Your task to perform on an android device: Open the Play Movies app and select the watchlist tab. Image 0: 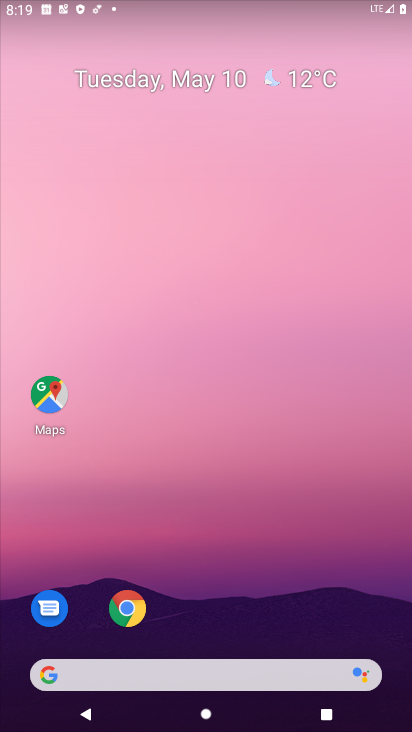
Step 0: drag from (154, 674) to (294, 255)
Your task to perform on an android device: Open the Play Movies app and select the watchlist tab. Image 1: 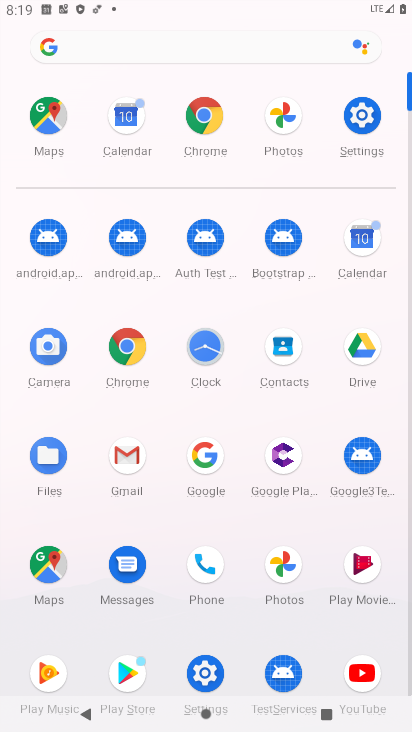
Step 1: click (362, 561)
Your task to perform on an android device: Open the Play Movies app and select the watchlist tab. Image 2: 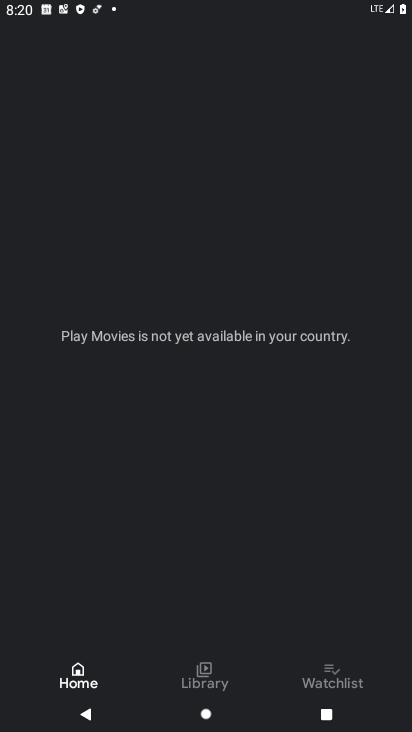
Step 2: click (332, 674)
Your task to perform on an android device: Open the Play Movies app and select the watchlist tab. Image 3: 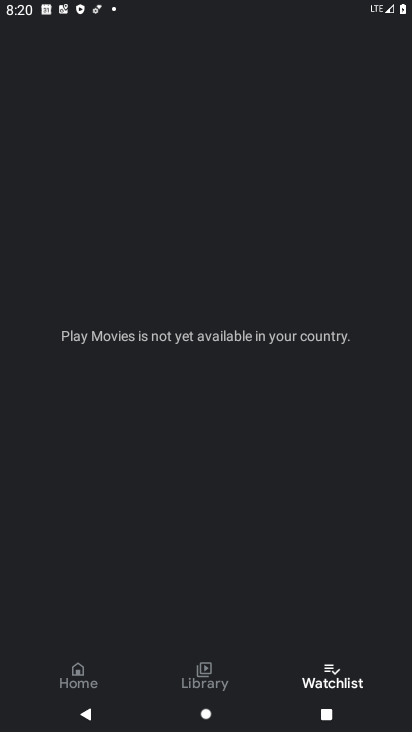
Step 3: task complete